Your task to perform on an android device: turn off airplane mode Image 0: 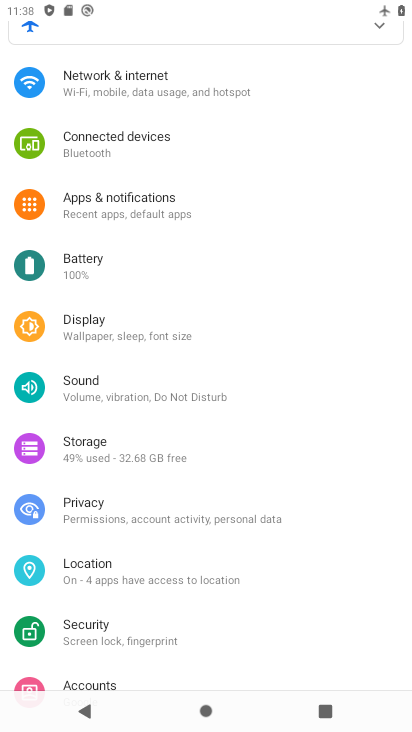
Step 0: click (274, 95)
Your task to perform on an android device: turn off airplane mode Image 1: 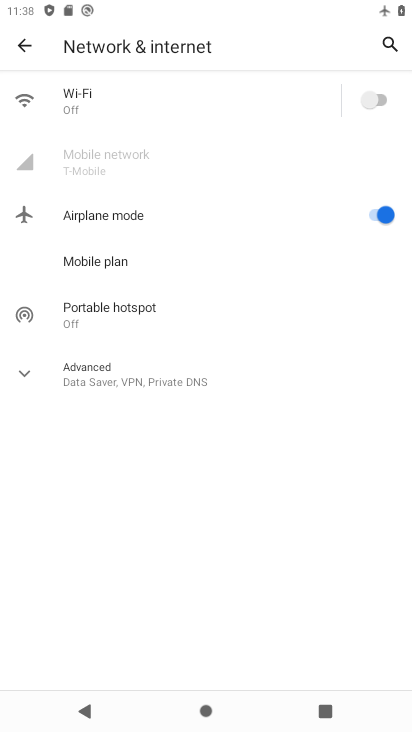
Step 1: click (395, 212)
Your task to perform on an android device: turn off airplane mode Image 2: 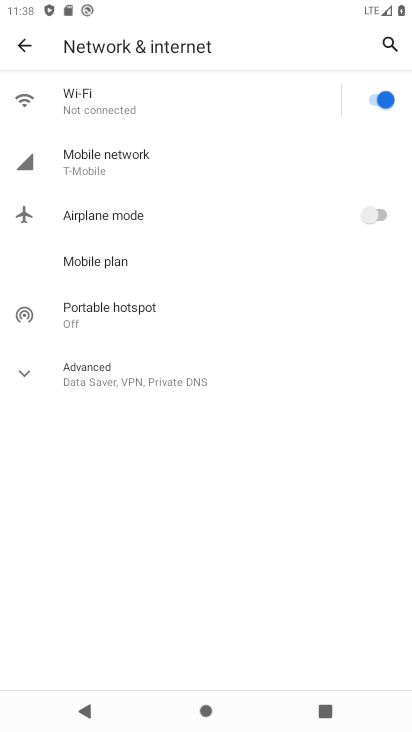
Step 2: task complete